Your task to perform on an android device: turn on airplane mode Image 0: 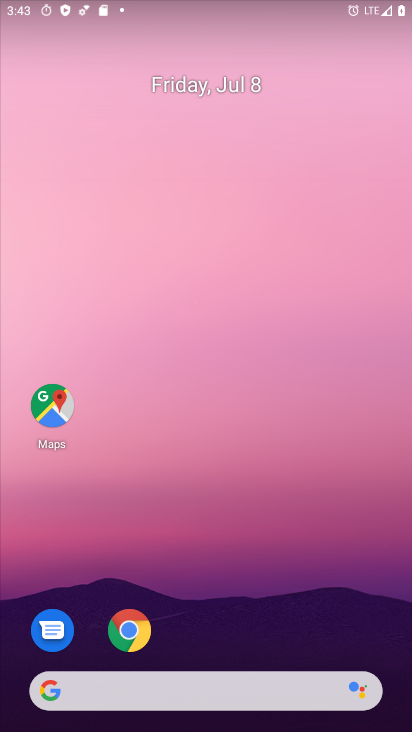
Step 0: drag from (335, 4) to (280, 296)
Your task to perform on an android device: turn on airplane mode Image 1: 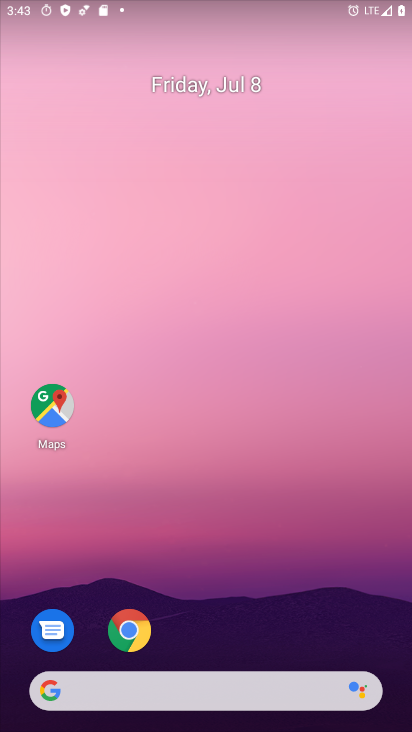
Step 1: drag from (284, 82) to (268, 234)
Your task to perform on an android device: turn on airplane mode Image 2: 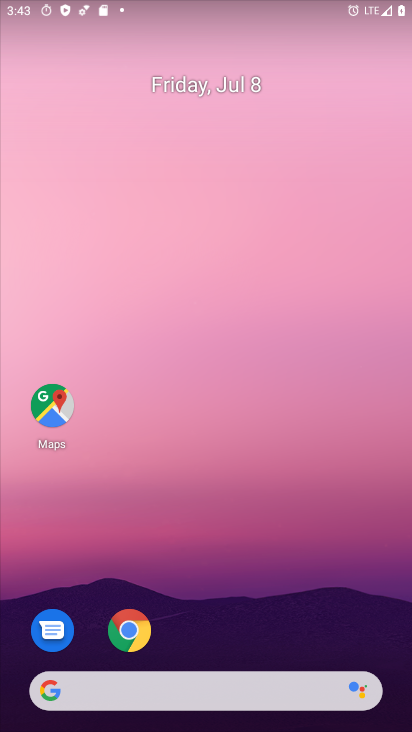
Step 2: drag from (302, 2) to (270, 236)
Your task to perform on an android device: turn on airplane mode Image 3: 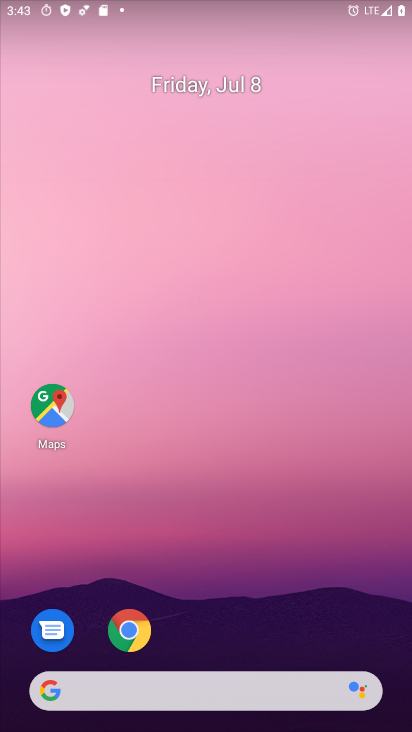
Step 3: drag from (329, 0) to (292, 215)
Your task to perform on an android device: turn on airplane mode Image 4: 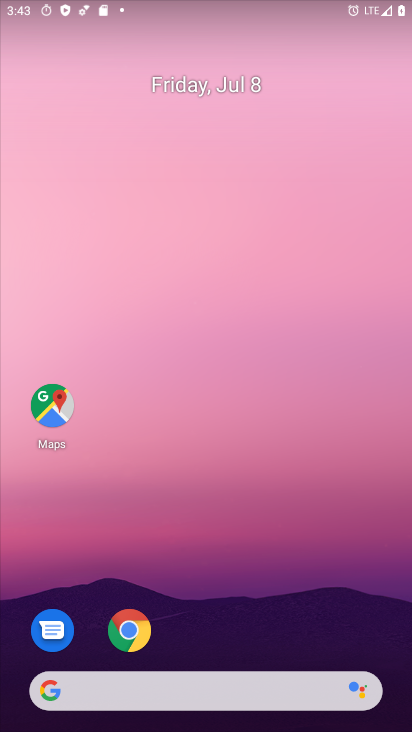
Step 4: drag from (290, 0) to (273, 293)
Your task to perform on an android device: turn on airplane mode Image 5: 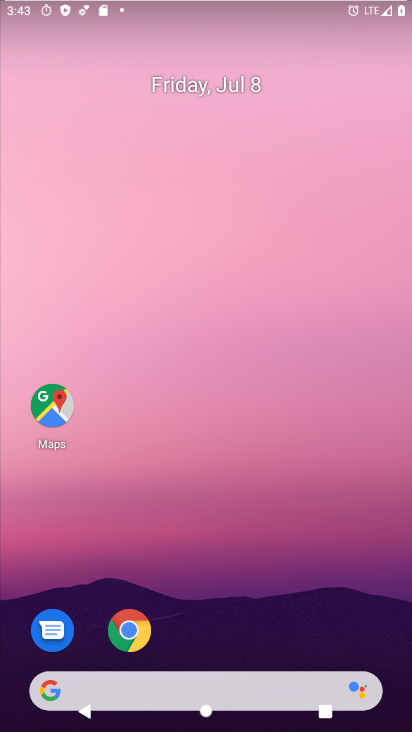
Step 5: drag from (310, 18) to (306, 252)
Your task to perform on an android device: turn on airplane mode Image 6: 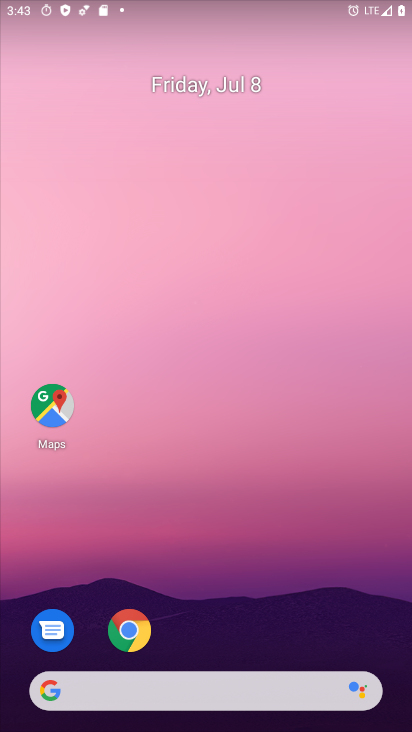
Step 6: drag from (279, 467) to (294, 38)
Your task to perform on an android device: turn on airplane mode Image 7: 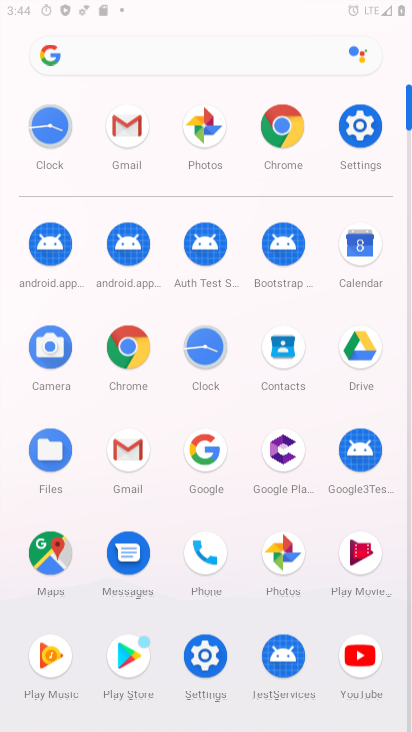
Step 7: drag from (296, 448) to (284, 181)
Your task to perform on an android device: turn on airplane mode Image 8: 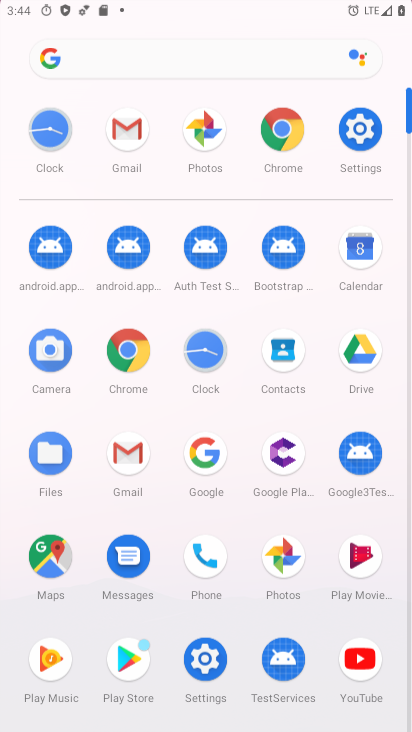
Step 8: click (357, 132)
Your task to perform on an android device: turn on airplane mode Image 9: 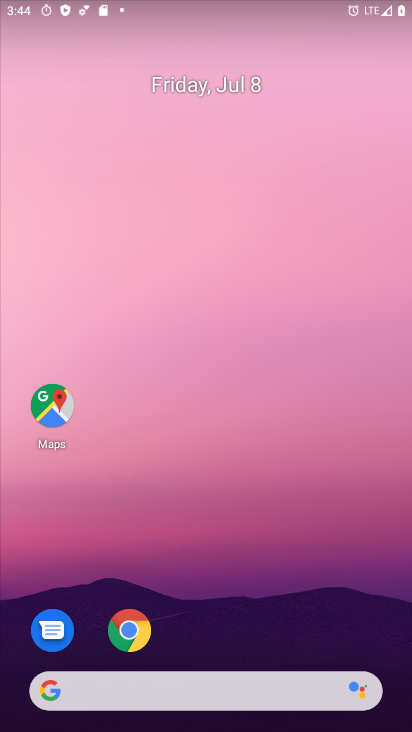
Step 9: drag from (259, 377) to (260, 16)
Your task to perform on an android device: turn on airplane mode Image 10: 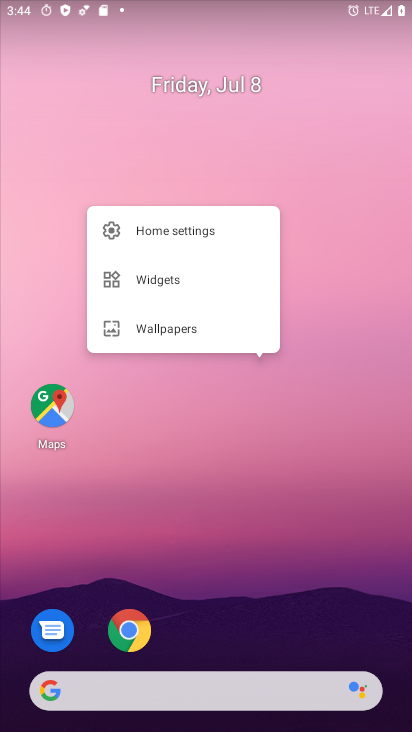
Step 10: click (226, 410)
Your task to perform on an android device: turn on airplane mode Image 11: 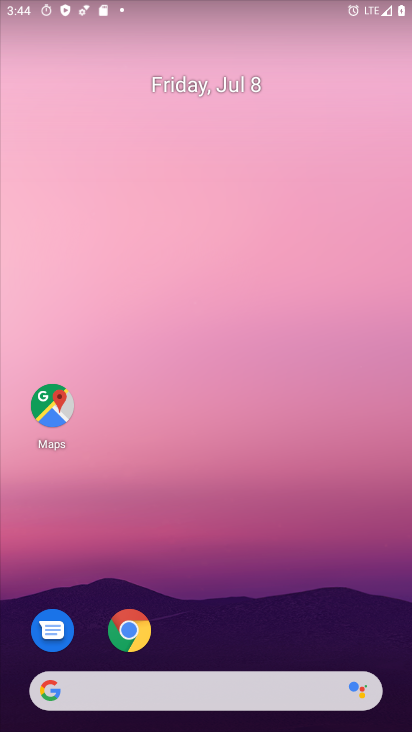
Step 11: drag from (226, 410) to (219, 349)
Your task to perform on an android device: turn on airplane mode Image 12: 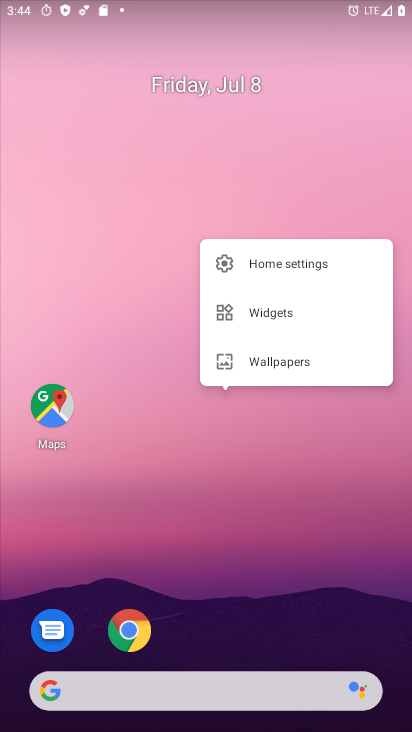
Step 12: click (225, 464)
Your task to perform on an android device: turn on airplane mode Image 13: 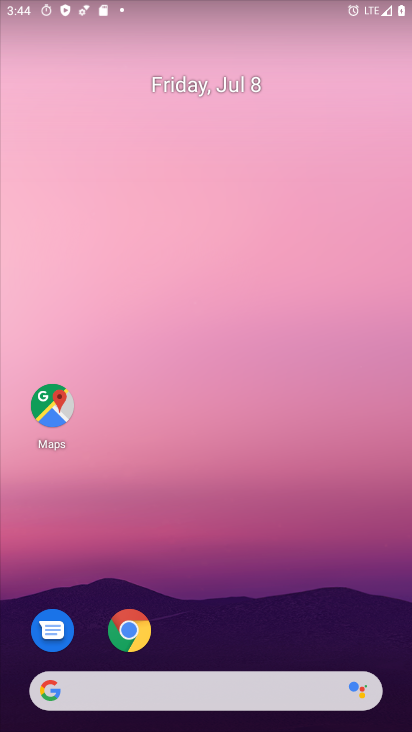
Step 13: click (225, 464)
Your task to perform on an android device: turn on airplane mode Image 14: 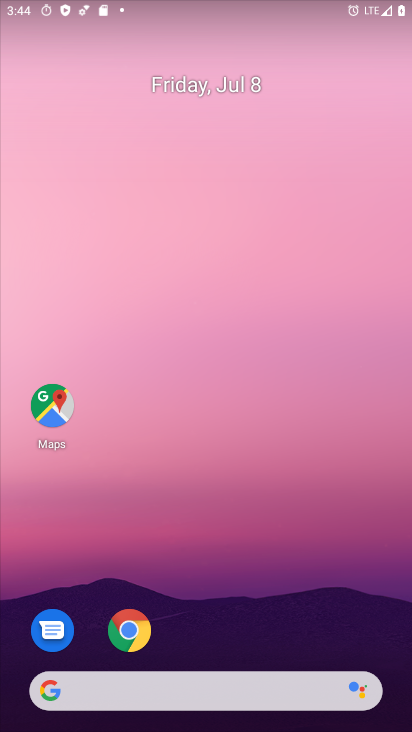
Step 14: drag from (225, 459) to (233, 148)
Your task to perform on an android device: turn on airplane mode Image 15: 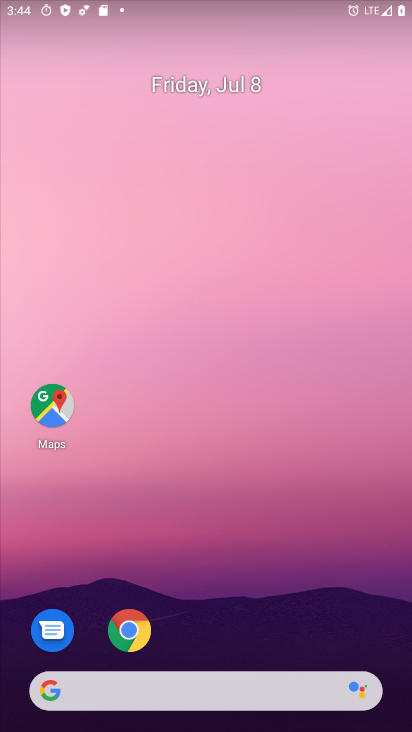
Step 15: drag from (287, 450) to (248, 84)
Your task to perform on an android device: turn on airplane mode Image 16: 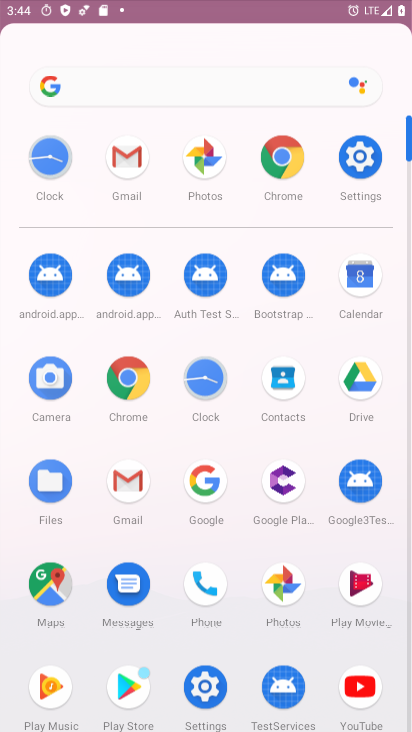
Step 16: drag from (315, 438) to (252, 128)
Your task to perform on an android device: turn on airplane mode Image 17: 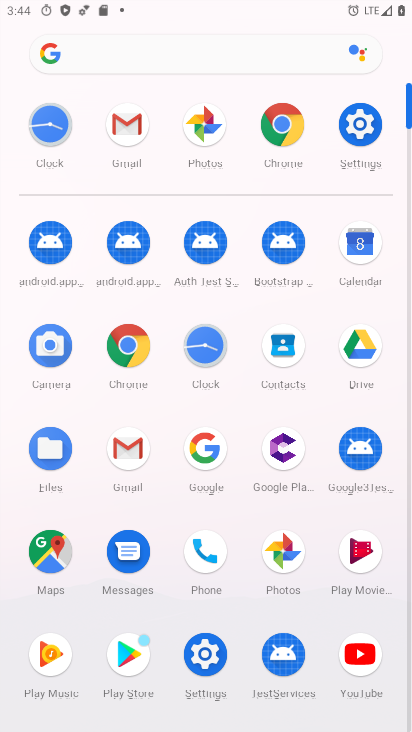
Step 17: click (351, 130)
Your task to perform on an android device: turn on airplane mode Image 18: 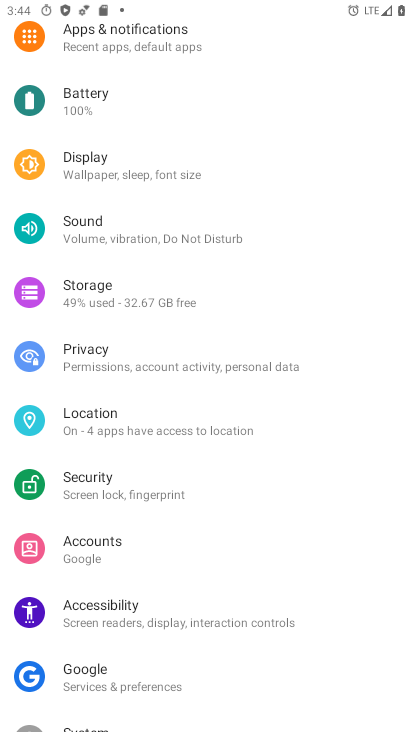
Step 18: drag from (261, 192) to (247, 366)
Your task to perform on an android device: turn on airplane mode Image 19: 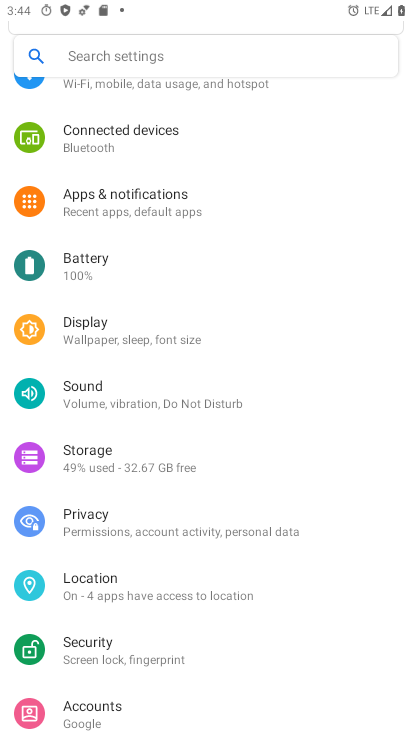
Step 19: drag from (207, 130) to (200, 265)
Your task to perform on an android device: turn on airplane mode Image 20: 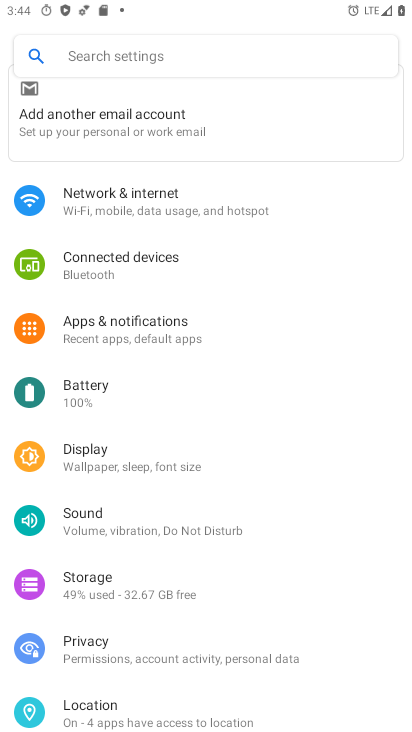
Step 20: click (162, 192)
Your task to perform on an android device: turn on airplane mode Image 21: 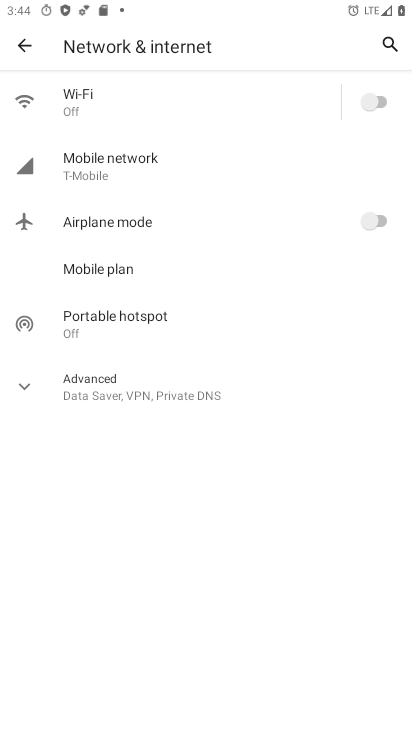
Step 21: click (375, 216)
Your task to perform on an android device: turn on airplane mode Image 22: 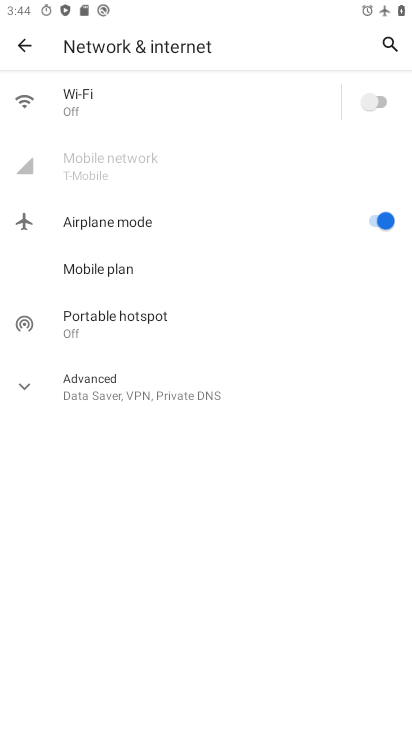
Step 22: task complete